Your task to perform on an android device: turn off improve location accuracy Image 0: 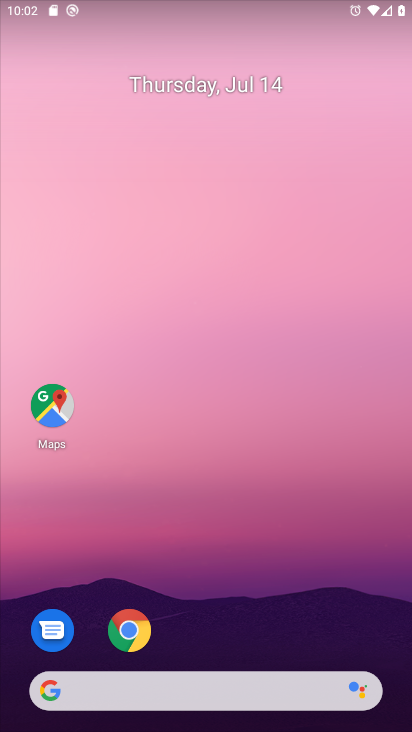
Step 0: drag from (230, 209) to (230, 142)
Your task to perform on an android device: turn off improve location accuracy Image 1: 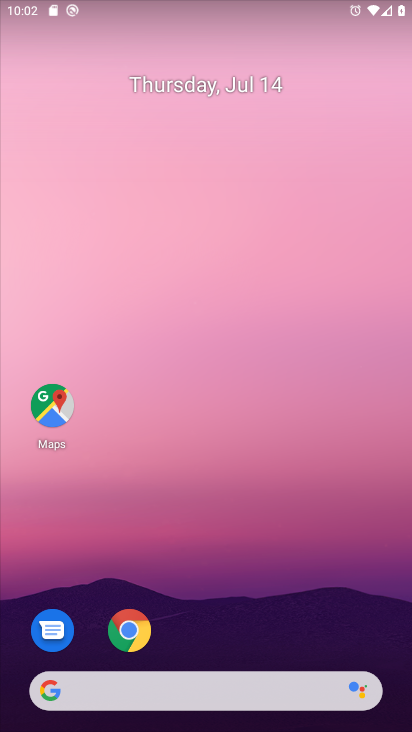
Step 1: drag from (212, 650) to (290, 20)
Your task to perform on an android device: turn off improve location accuracy Image 2: 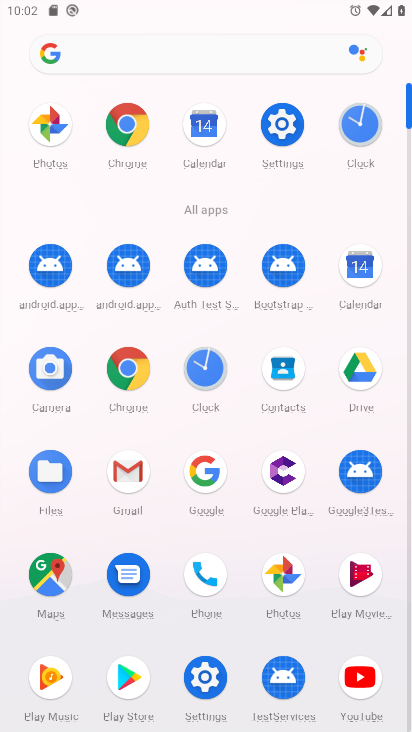
Step 2: click (205, 671)
Your task to perform on an android device: turn off improve location accuracy Image 3: 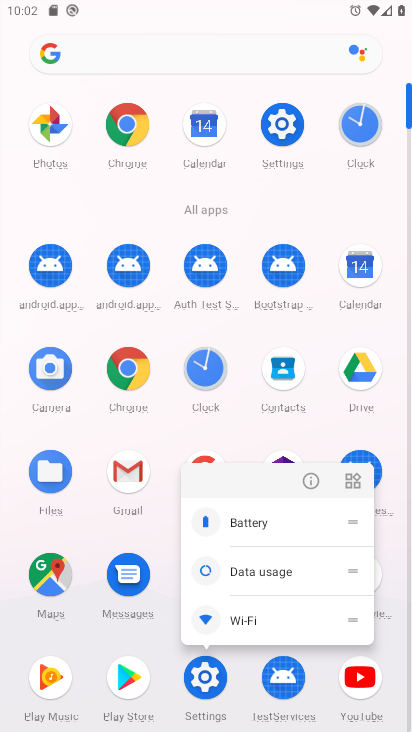
Step 3: click (311, 482)
Your task to perform on an android device: turn off improve location accuracy Image 4: 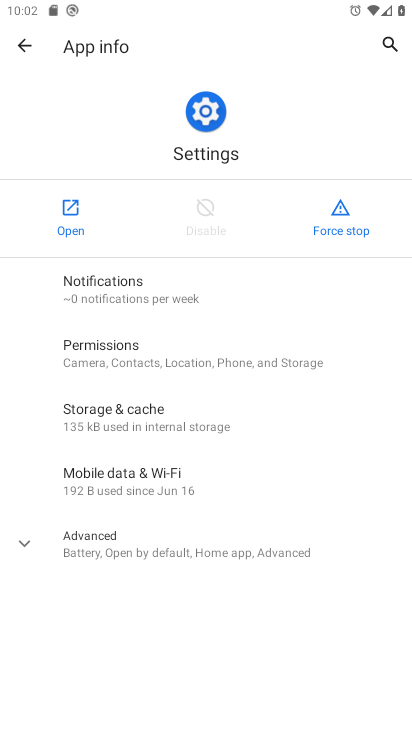
Step 4: click (74, 207)
Your task to perform on an android device: turn off improve location accuracy Image 5: 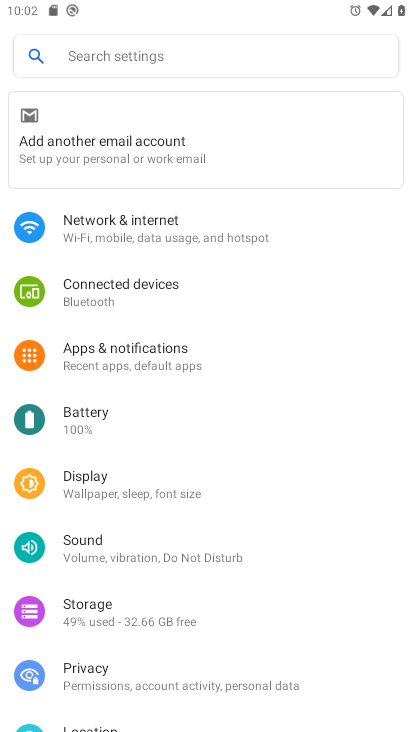
Step 5: drag from (141, 652) to (208, 234)
Your task to perform on an android device: turn off improve location accuracy Image 6: 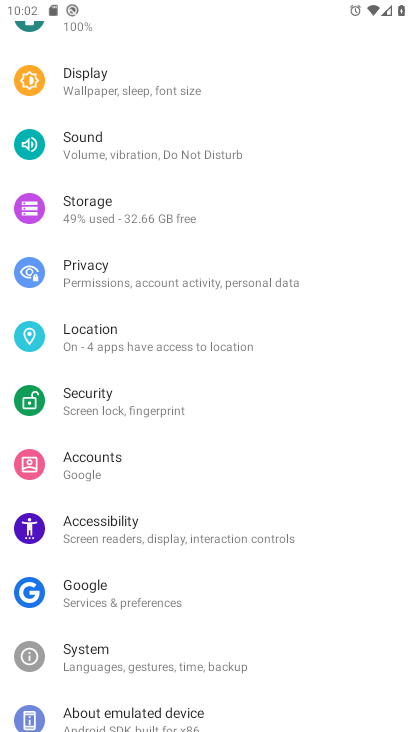
Step 6: click (158, 323)
Your task to perform on an android device: turn off improve location accuracy Image 7: 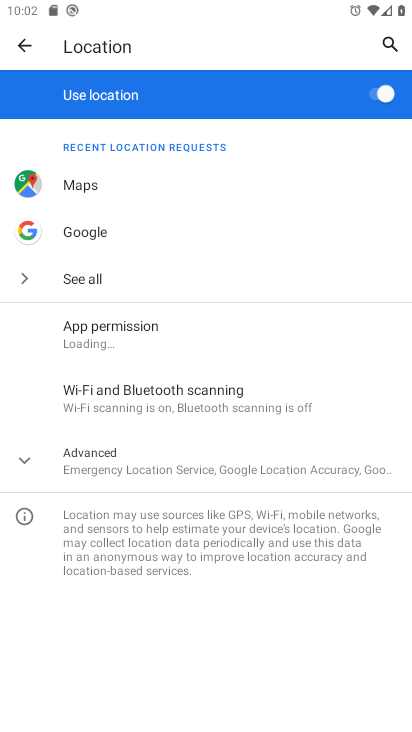
Step 7: click (132, 466)
Your task to perform on an android device: turn off improve location accuracy Image 8: 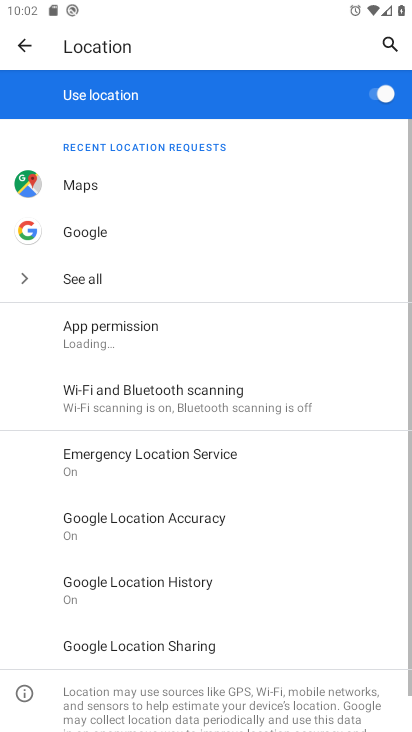
Step 8: drag from (232, 538) to (299, 304)
Your task to perform on an android device: turn off improve location accuracy Image 9: 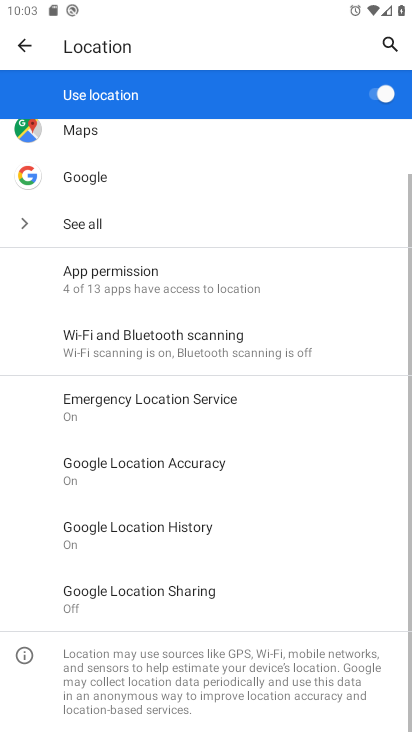
Step 9: click (194, 464)
Your task to perform on an android device: turn off improve location accuracy Image 10: 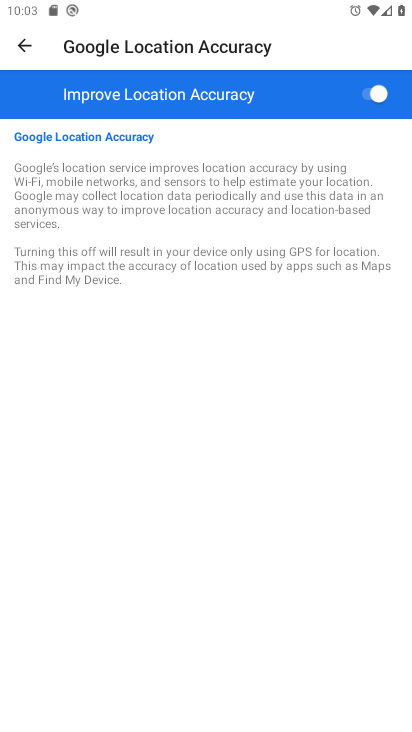
Step 10: click (367, 96)
Your task to perform on an android device: turn off improve location accuracy Image 11: 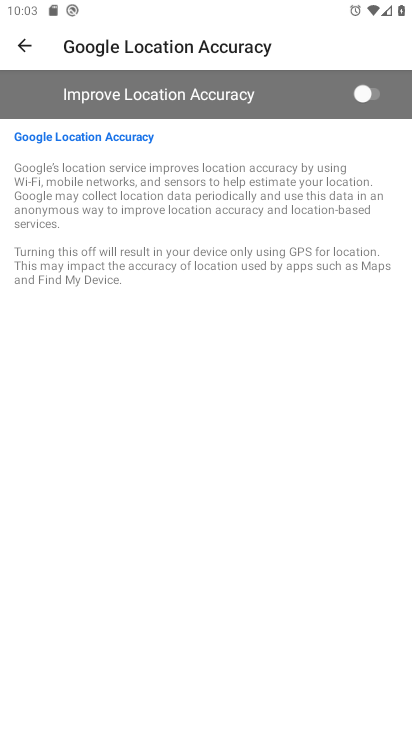
Step 11: task complete